Your task to perform on an android device: Open the calendar app, open the side menu, and click the "Day" option Image 0: 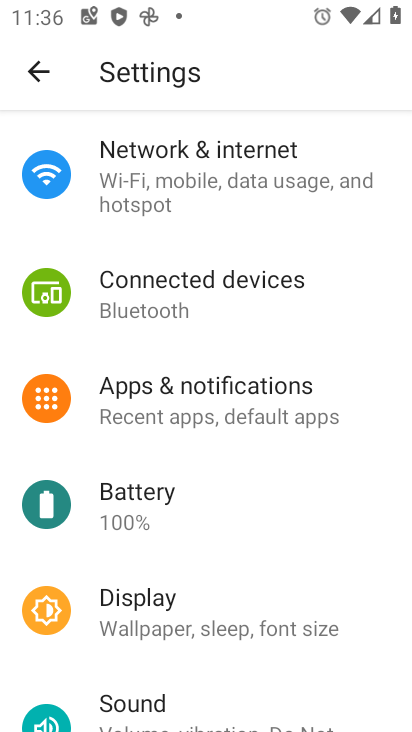
Step 0: press home button
Your task to perform on an android device: Open the calendar app, open the side menu, and click the "Day" option Image 1: 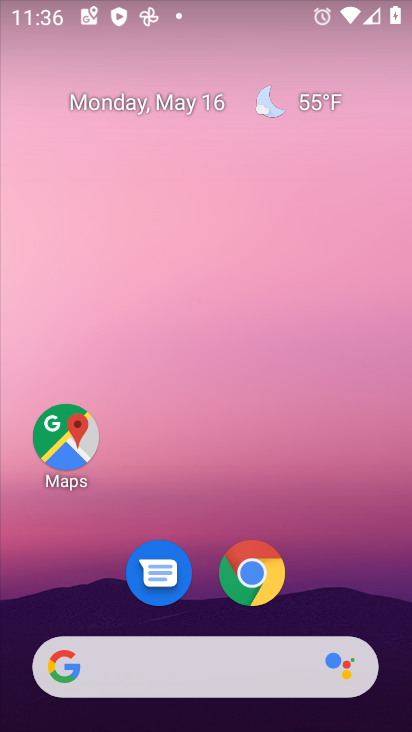
Step 1: drag from (340, 569) to (245, 152)
Your task to perform on an android device: Open the calendar app, open the side menu, and click the "Day" option Image 2: 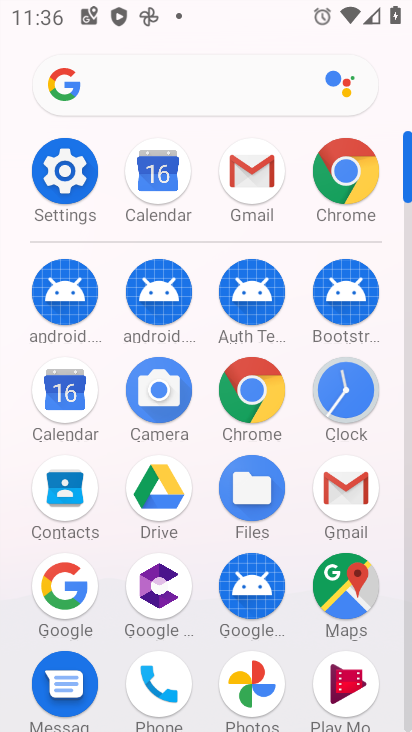
Step 2: click (74, 393)
Your task to perform on an android device: Open the calendar app, open the side menu, and click the "Day" option Image 3: 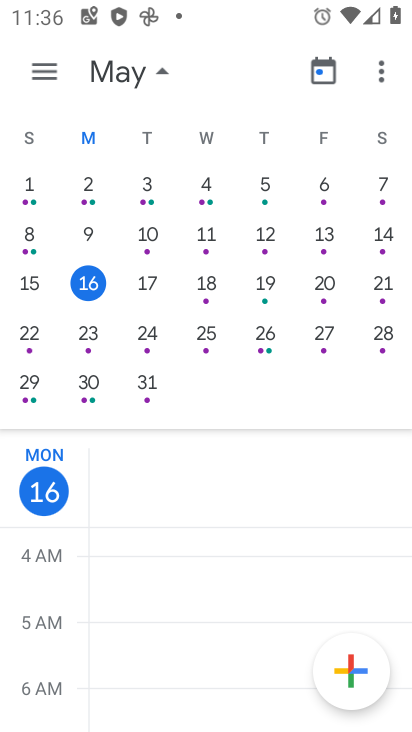
Step 3: click (55, 66)
Your task to perform on an android device: Open the calendar app, open the side menu, and click the "Day" option Image 4: 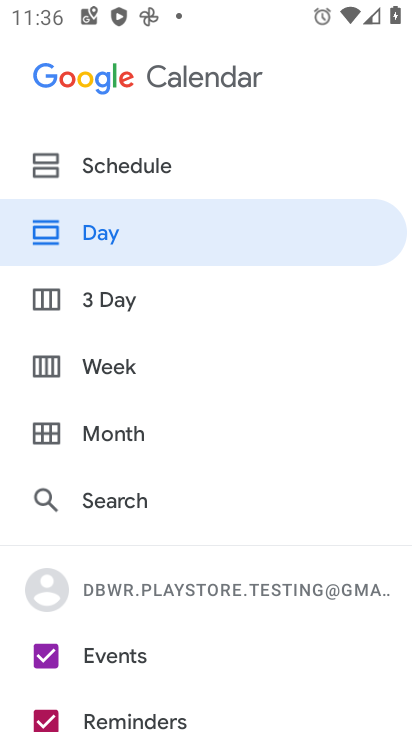
Step 4: click (99, 235)
Your task to perform on an android device: Open the calendar app, open the side menu, and click the "Day" option Image 5: 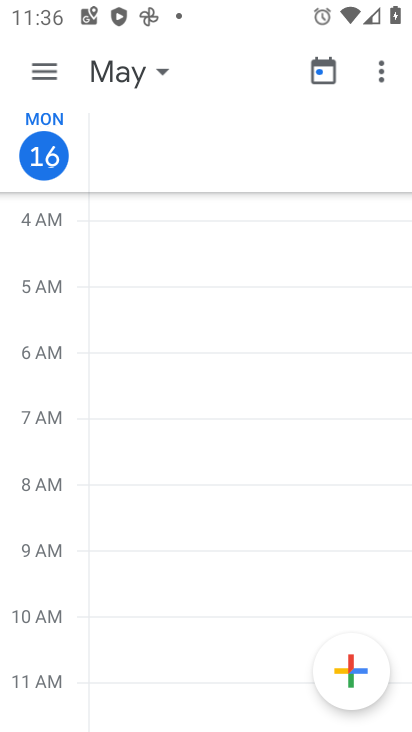
Step 5: task complete